Your task to perform on an android device: allow notifications from all sites in the chrome app Image 0: 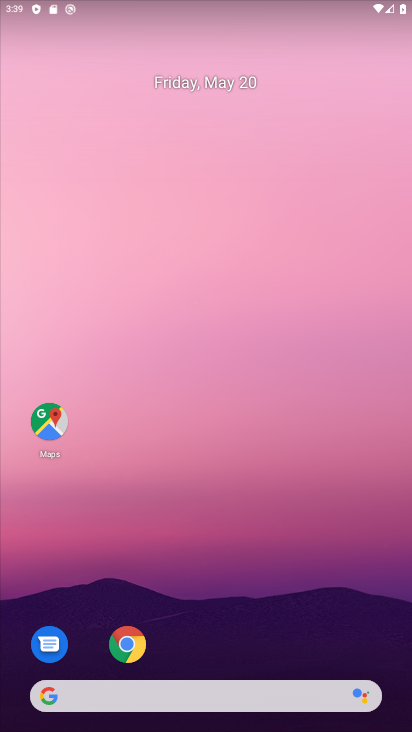
Step 0: click (132, 646)
Your task to perform on an android device: allow notifications from all sites in the chrome app Image 1: 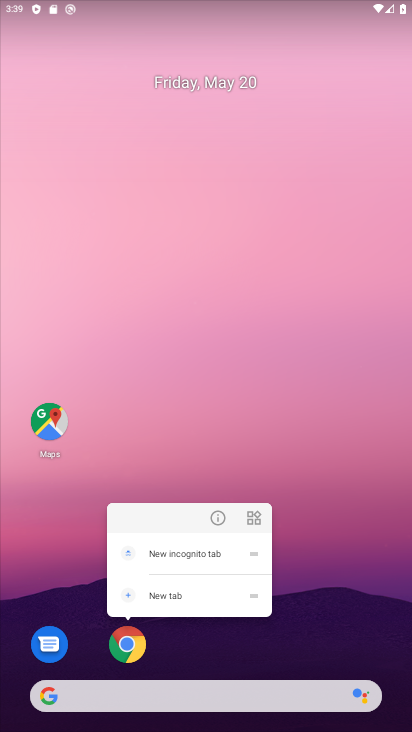
Step 1: click (131, 655)
Your task to perform on an android device: allow notifications from all sites in the chrome app Image 2: 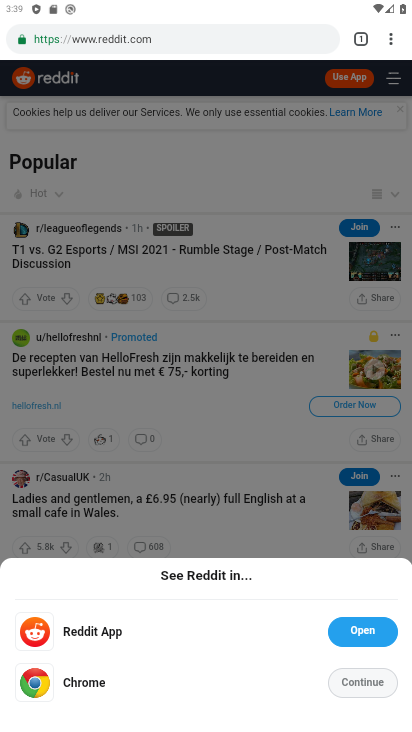
Step 2: drag from (392, 36) to (268, 517)
Your task to perform on an android device: allow notifications from all sites in the chrome app Image 3: 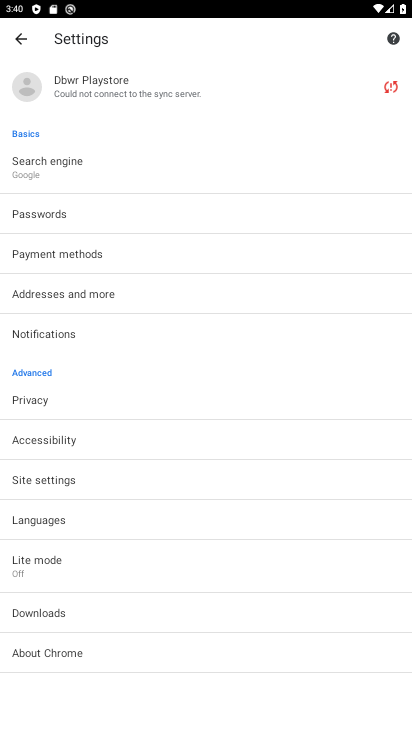
Step 3: click (68, 487)
Your task to perform on an android device: allow notifications from all sites in the chrome app Image 4: 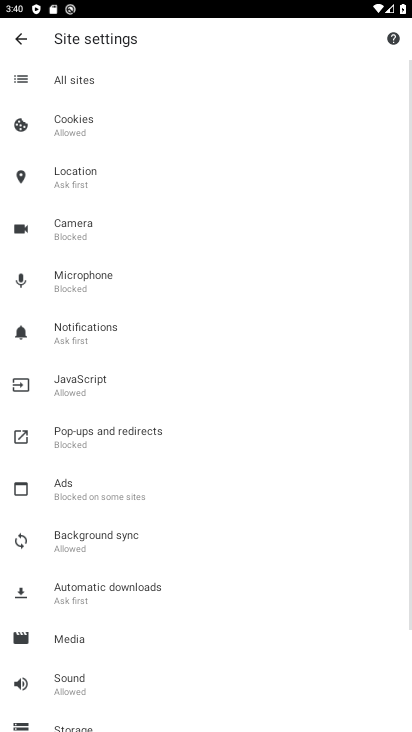
Step 4: click (103, 326)
Your task to perform on an android device: allow notifications from all sites in the chrome app Image 5: 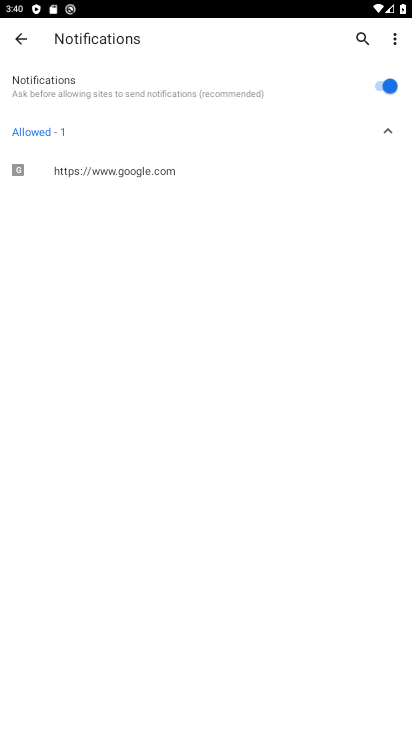
Step 5: task complete